Your task to perform on an android device: make emails show in primary in the gmail app Image 0: 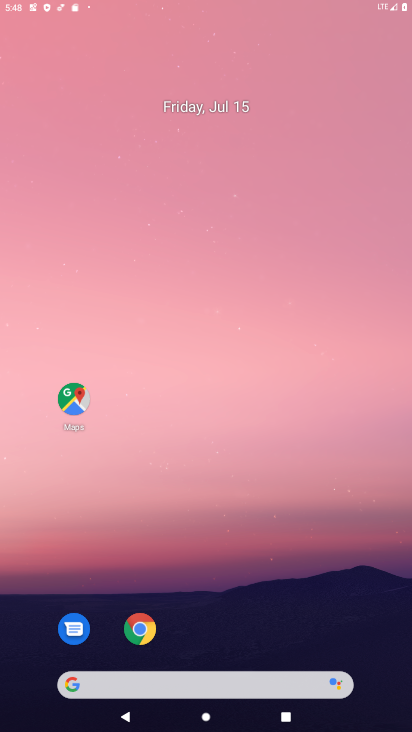
Step 0: press home button
Your task to perform on an android device: make emails show in primary in the gmail app Image 1: 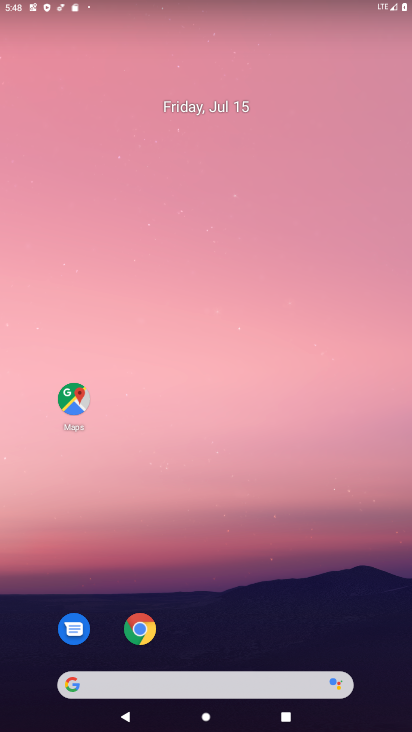
Step 1: drag from (219, 636) to (184, 1)
Your task to perform on an android device: make emails show in primary in the gmail app Image 2: 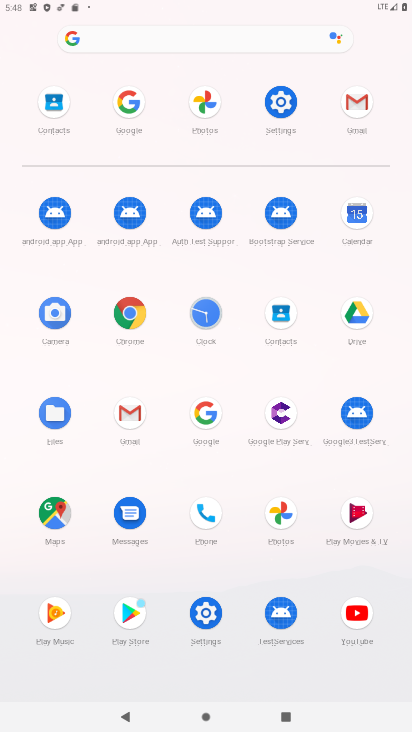
Step 2: click (350, 110)
Your task to perform on an android device: make emails show in primary in the gmail app Image 3: 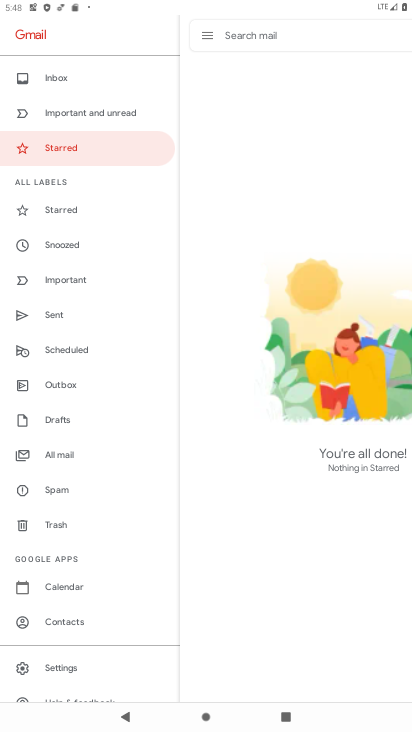
Step 3: click (55, 668)
Your task to perform on an android device: make emails show in primary in the gmail app Image 4: 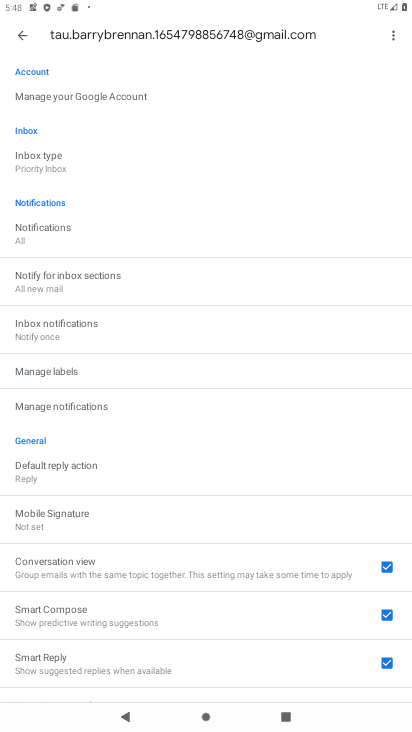
Step 4: task complete